Your task to perform on an android device: turn notification dots off Image 0: 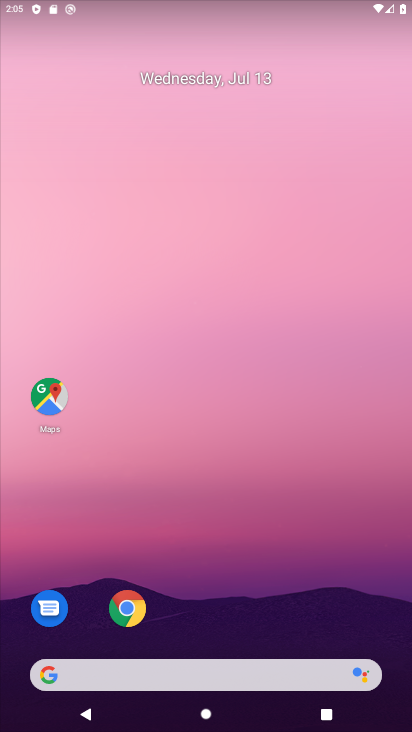
Step 0: drag from (344, 688) to (240, 158)
Your task to perform on an android device: turn notification dots off Image 1: 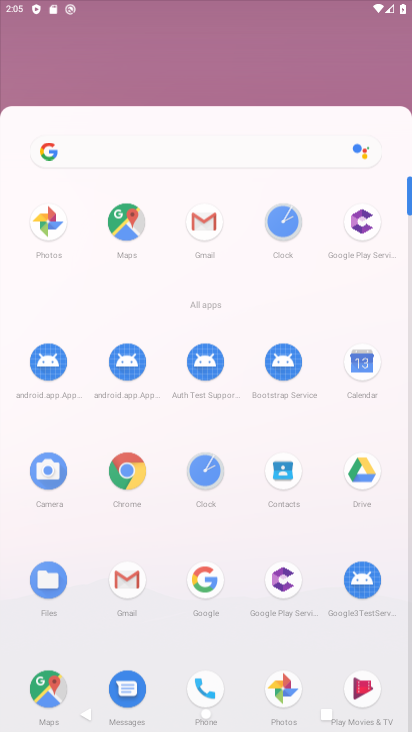
Step 1: drag from (277, 318) to (269, 248)
Your task to perform on an android device: turn notification dots off Image 2: 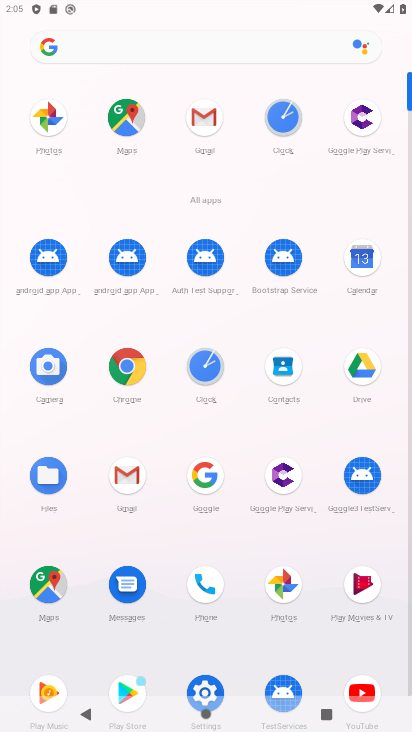
Step 2: click (303, 463)
Your task to perform on an android device: turn notification dots off Image 3: 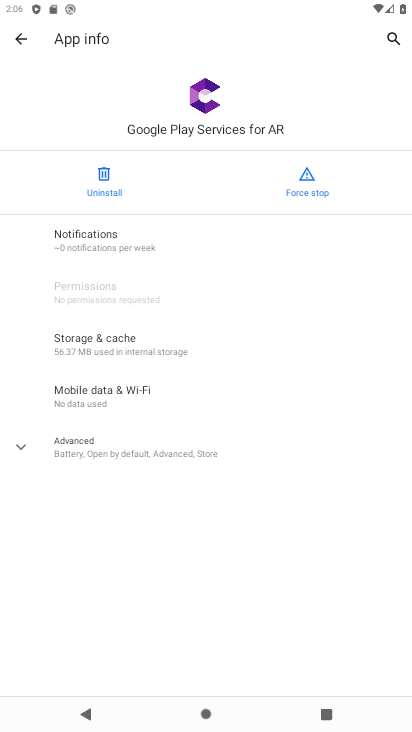
Step 3: click (20, 36)
Your task to perform on an android device: turn notification dots off Image 4: 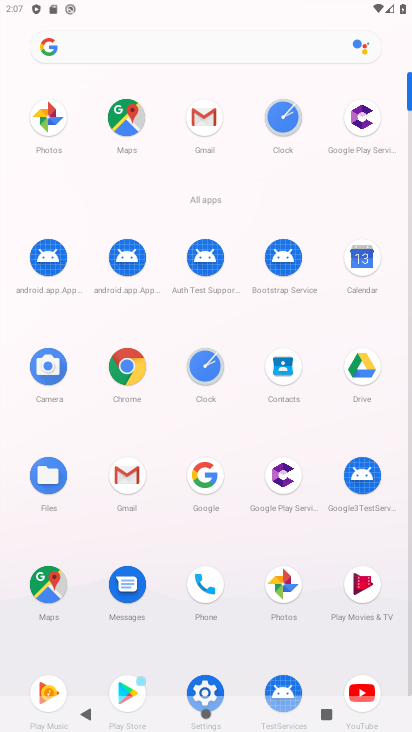
Step 4: click (232, 697)
Your task to perform on an android device: turn notification dots off Image 5: 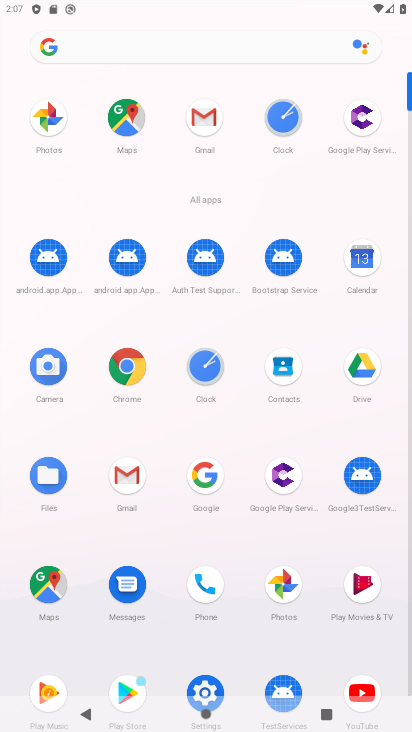
Step 5: click (326, 477)
Your task to perform on an android device: turn notification dots off Image 6: 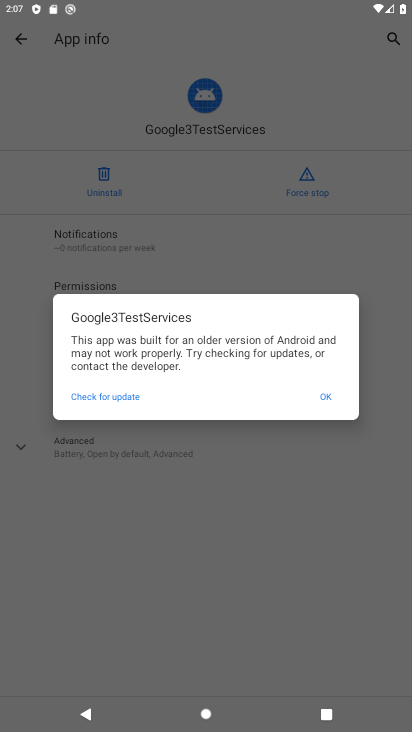
Step 6: click (96, 386)
Your task to perform on an android device: turn notification dots off Image 7: 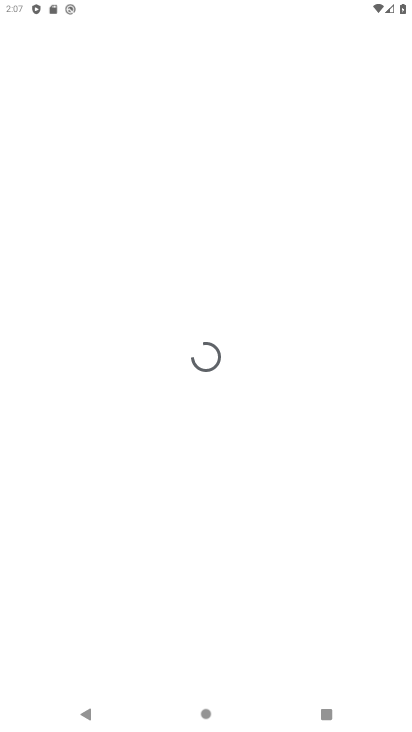
Step 7: task complete